Your task to perform on an android device: Search for seafood restaurants on Google Maps Image 0: 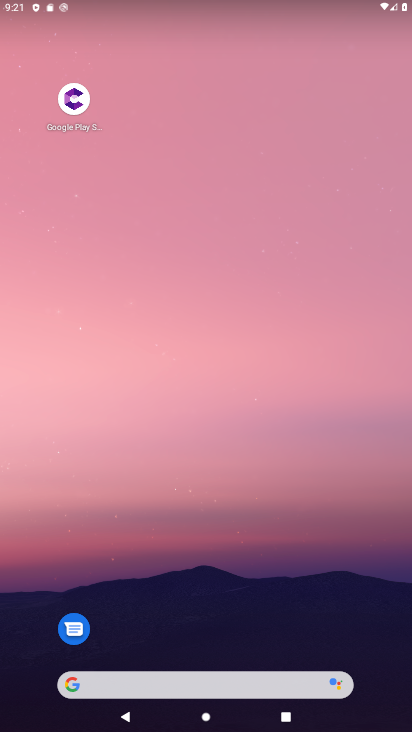
Step 0: press back button
Your task to perform on an android device: Search for seafood restaurants on Google Maps Image 1: 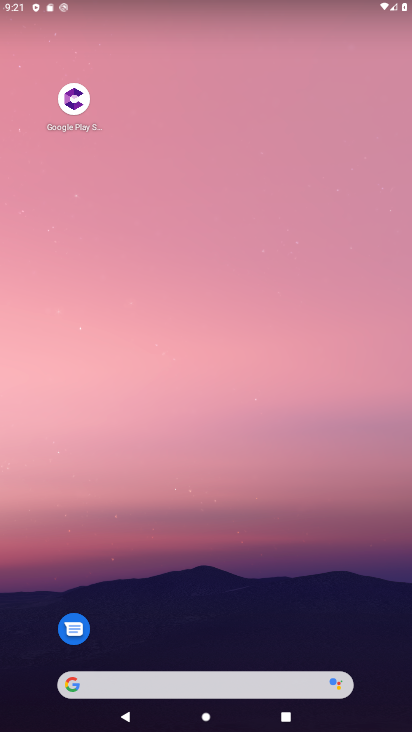
Step 1: drag from (217, 630) to (214, 194)
Your task to perform on an android device: Search for seafood restaurants on Google Maps Image 2: 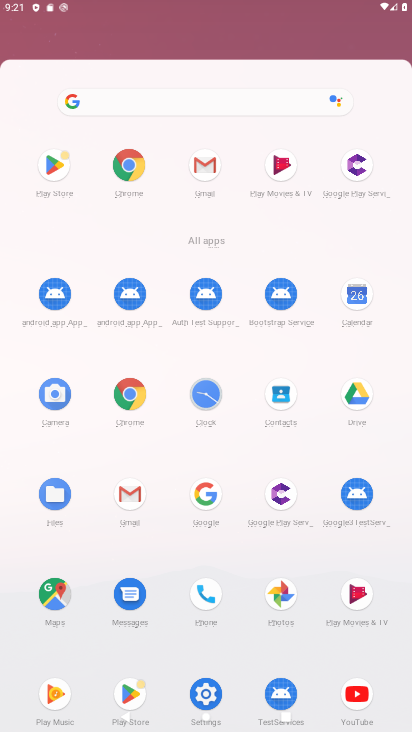
Step 2: drag from (228, 332) to (228, 11)
Your task to perform on an android device: Search for seafood restaurants on Google Maps Image 3: 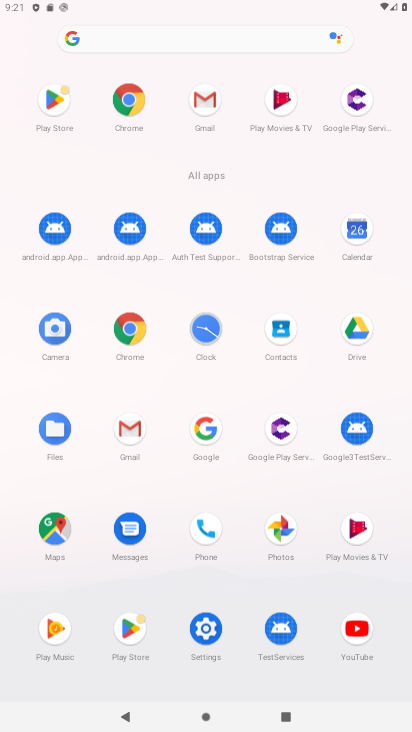
Step 3: drag from (263, 327) to (270, 55)
Your task to perform on an android device: Search for seafood restaurants on Google Maps Image 4: 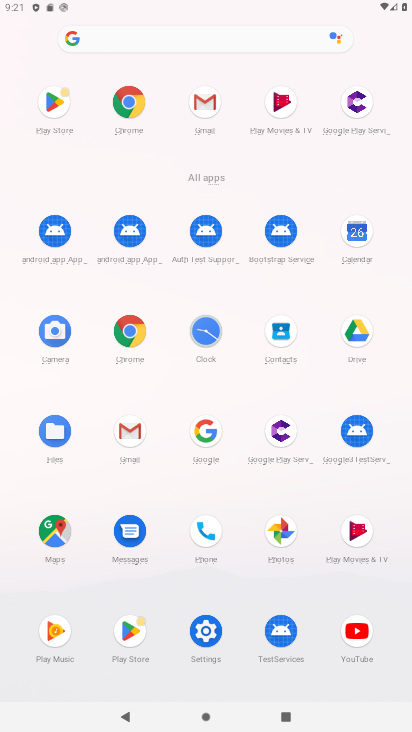
Step 4: click (51, 534)
Your task to perform on an android device: Search for seafood restaurants on Google Maps Image 5: 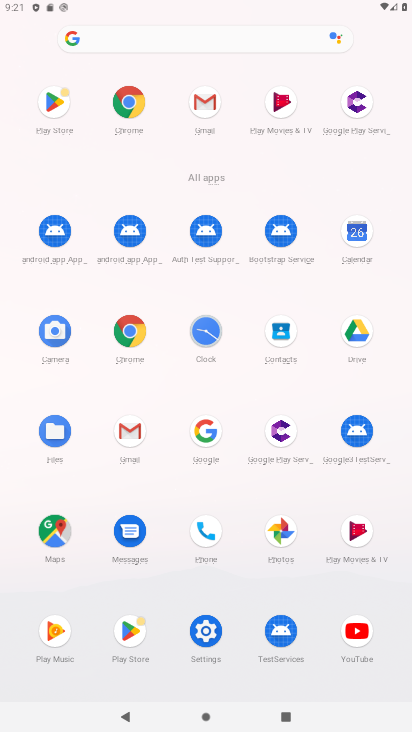
Step 5: click (51, 534)
Your task to perform on an android device: Search for seafood restaurants on Google Maps Image 6: 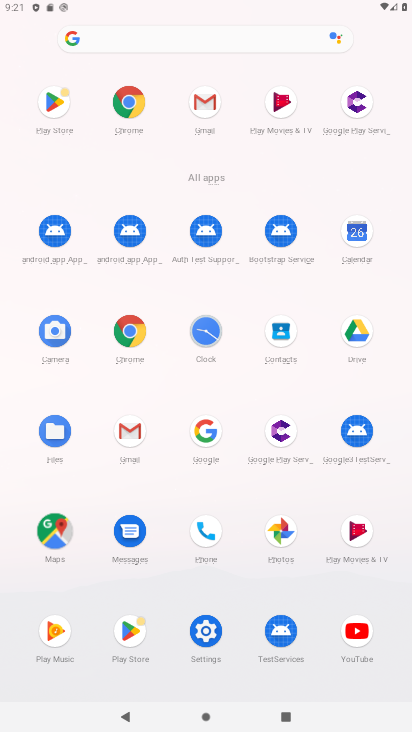
Step 6: click (51, 534)
Your task to perform on an android device: Search for seafood restaurants on Google Maps Image 7: 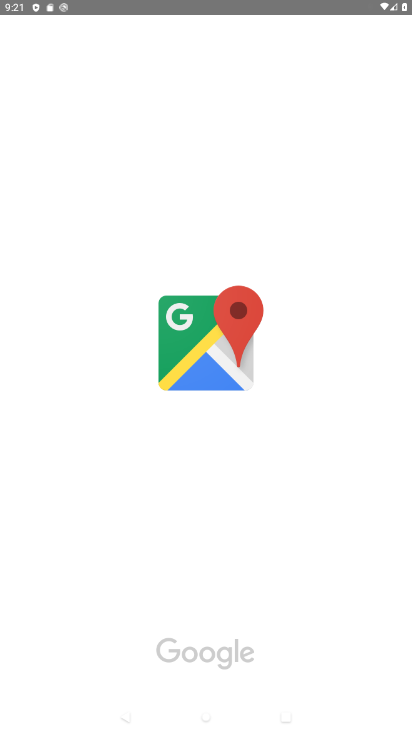
Step 7: click (51, 534)
Your task to perform on an android device: Search for seafood restaurants on Google Maps Image 8: 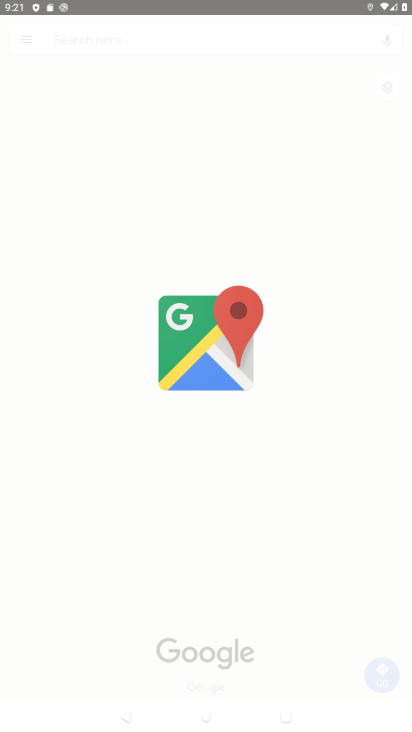
Step 8: click (51, 534)
Your task to perform on an android device: Search for seafood restaurants on Google Maps Image 9: 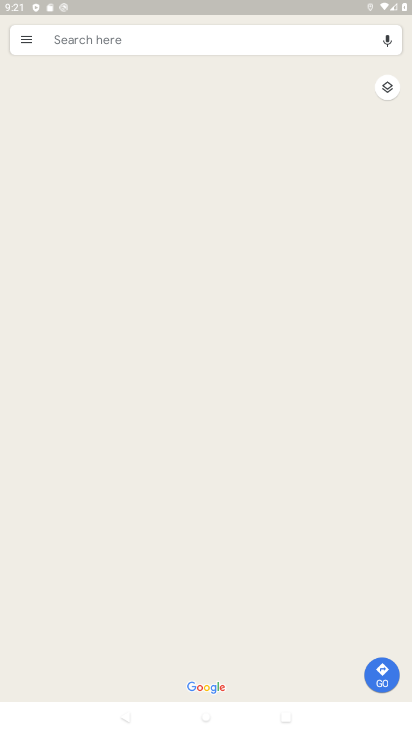
Step 9: click (53, 532)
Your task to perform on an android device: Search for seafood restaurants on Google Maps Image 10: 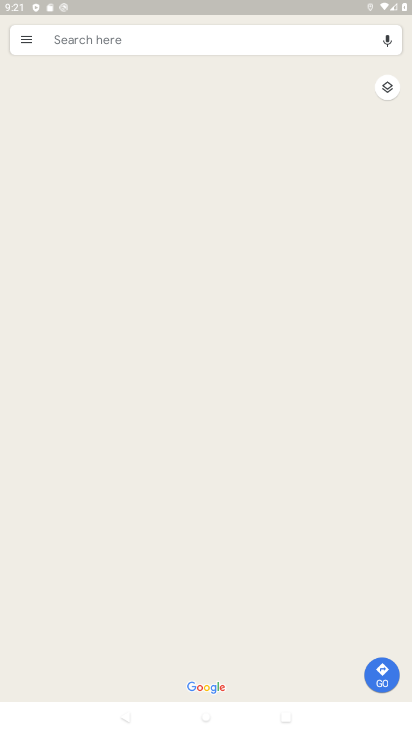
Step 10: click (53, 532)
Your task to perform on an android device: Search for seafood restaurants on Google Maps Image 11: 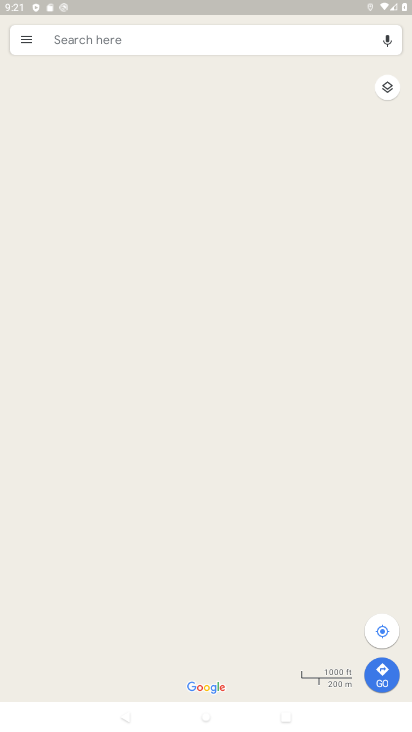
Step 11: click (84, 39)
Your task to perform on an android device: Search for seafood restaurants on Google Maps Image 12: 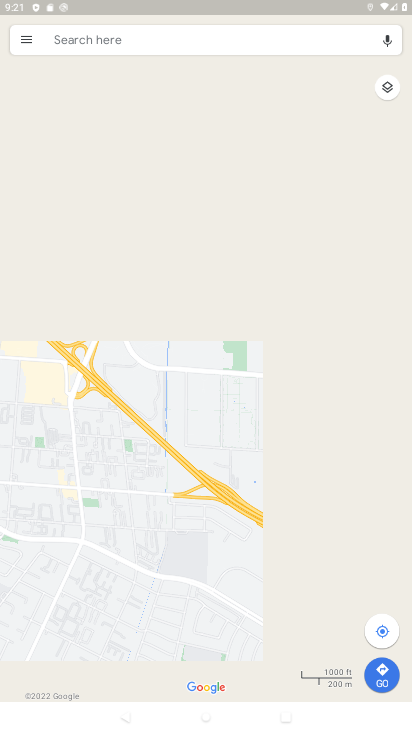
Step 12: click (89, 37)
Your task to perform on an android device: Search for seafood restaurants on Google Maps Image 13: 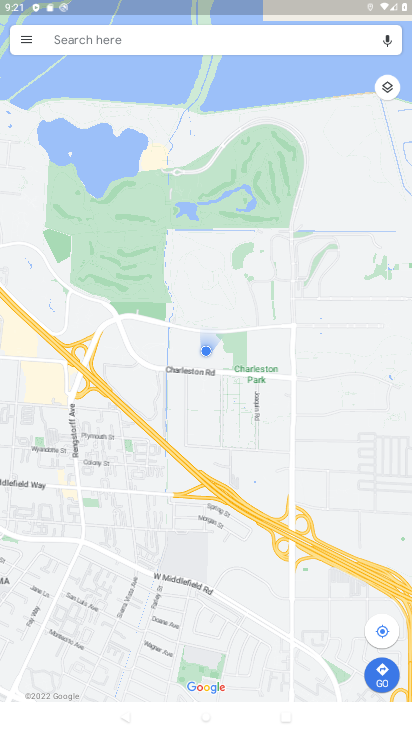
Step 13: click (91, 37)
Your task to perform on an android device: Search for seafood restaurants on Google Maps Image 14: 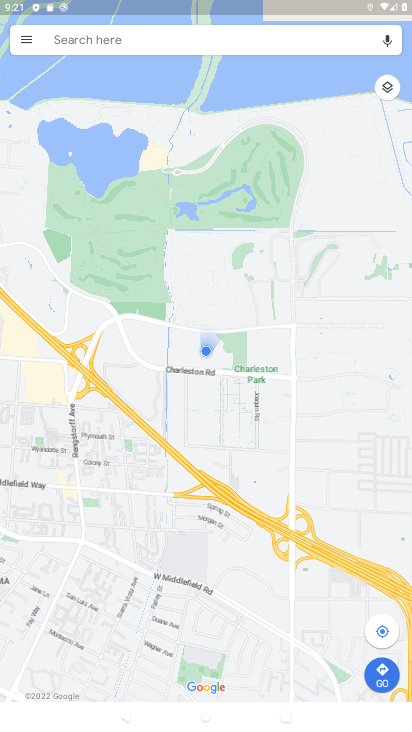
Step 14: click (91, 37)
Your task to perform on an android device: Search for seafood restaurants on Google Maps Image 15: 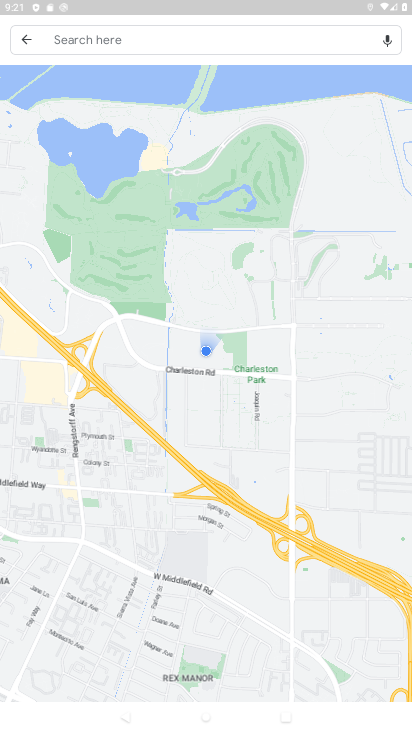
Step 15: click (95, 36)
Your task to perform on an android device: Search for seafood restaurants on Google Maps Image 16: 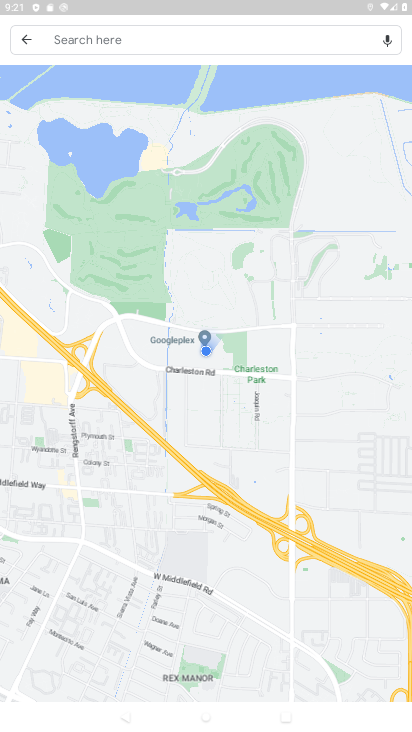
Step 16: click (94, 35)
Your task to perform on an android device: Search for seafood restaurants on Google Maps Image 17: 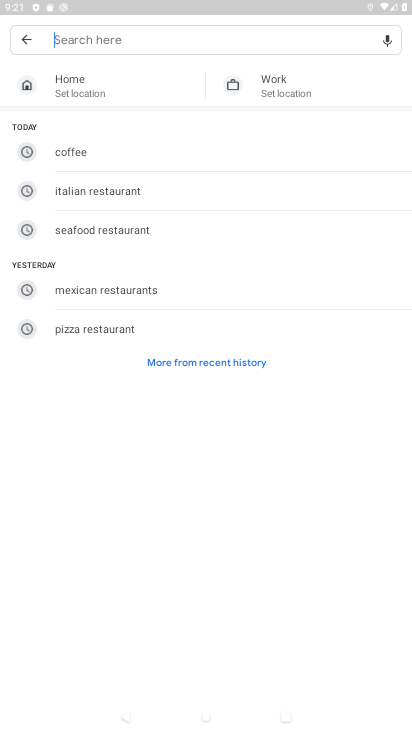
Step 17: click (94, 35)
Your task to perform on an android device: Search for seafood restaurants on Google Maps Image 18: 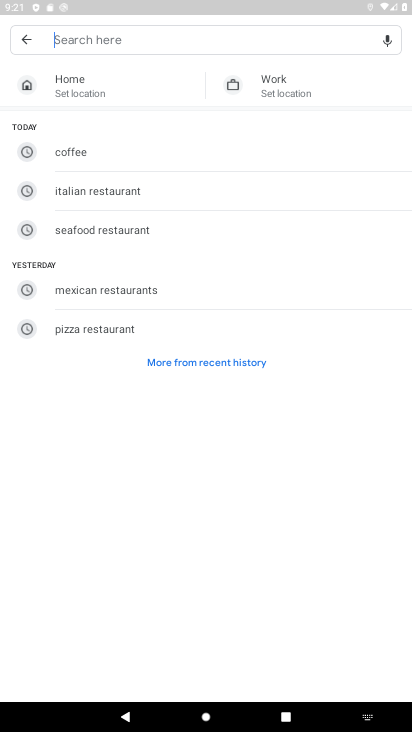
Step 18: click (84, 40)
Your task to perform on an android device: Search for seafood restaurants on Google Maps Image 19: 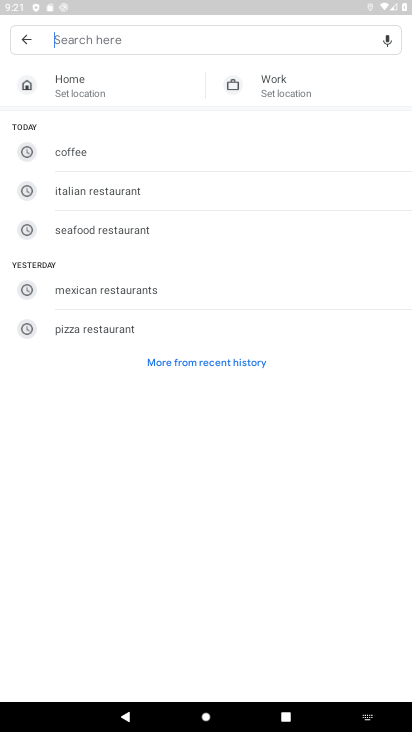
Step 19: click (106, 240)
Your task to perform on an android device: Search for seafood restaurants on Google Maps Image 20: 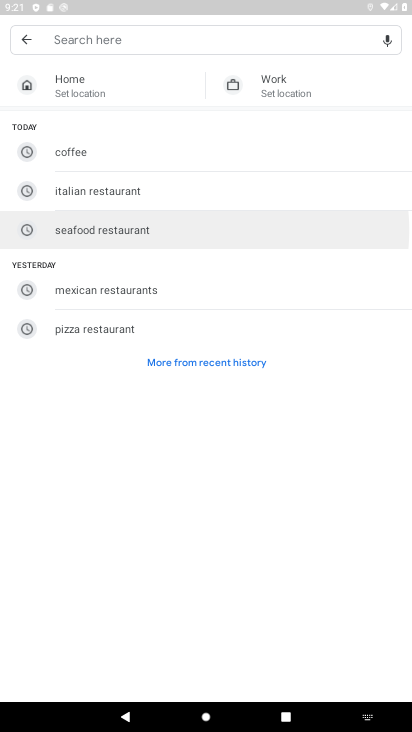
Step 20: click (103, 219)
Your task to perform on an android device: Search for seafood restaurants on Google Maps Image 21: 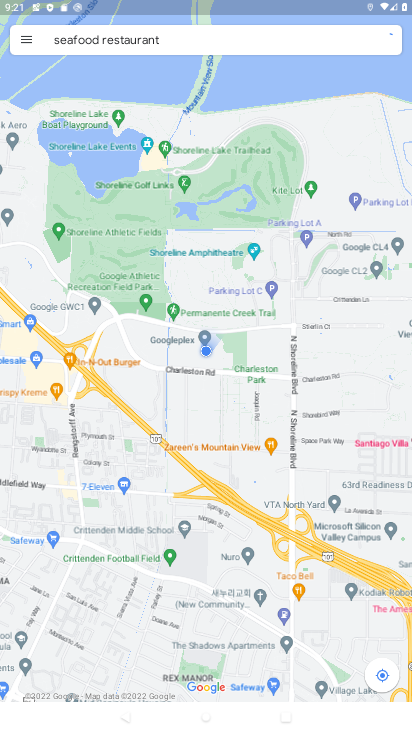
Step 21: task complete